Your task to perform on an android device: Set the phone to "Do not disturb". Image 0: 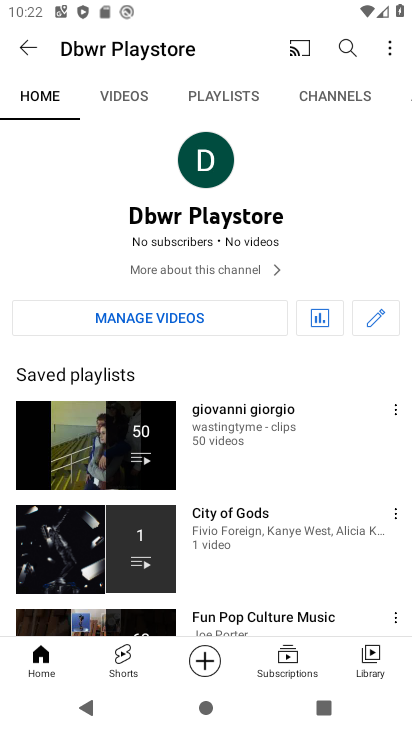
Step 0: press home button
Your task to perform on an android device: Set the phone to "Do not disturb". Image 1: 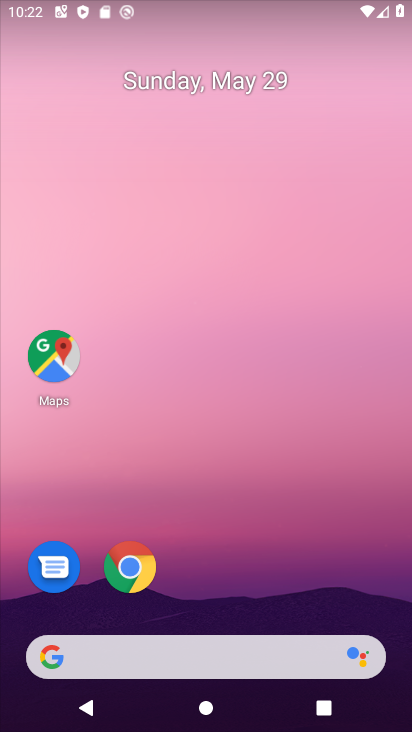
Step 1: drag from (363, 609) to (308, 179)
Your task to perform on an android device: Set the phone to "Do not disturb". Image 2: 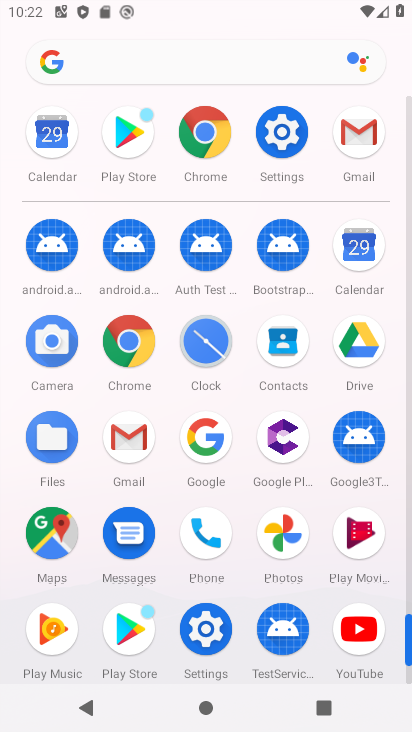
Step 2: click (208, 626)
Your task to perform on an android device: Set the phone to "Do not disturb". Image 3: 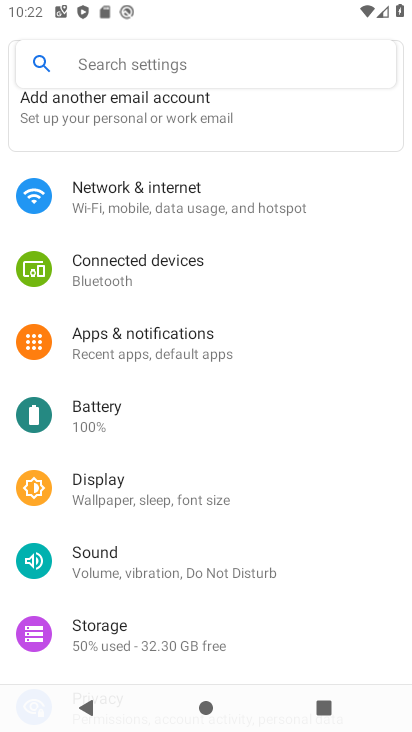
Step 3: click (159, 567)
Your task to perform on an android device: Set the phone to "Do not disturb". Image 4: 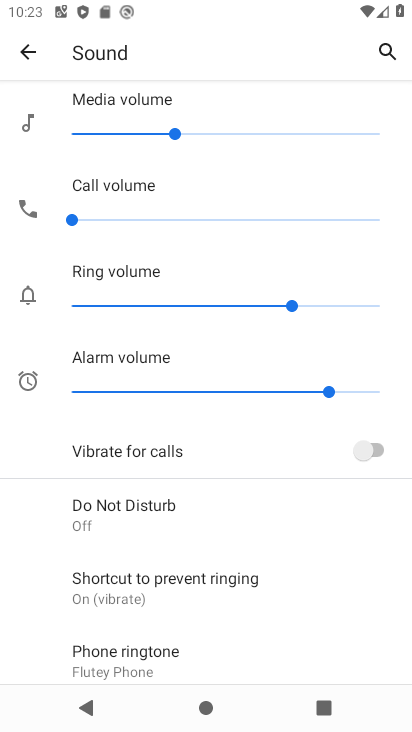
Step 4: click (119, 510)
Your task to perform on an android device: Set the phone to "Do not disturb". Image 5: 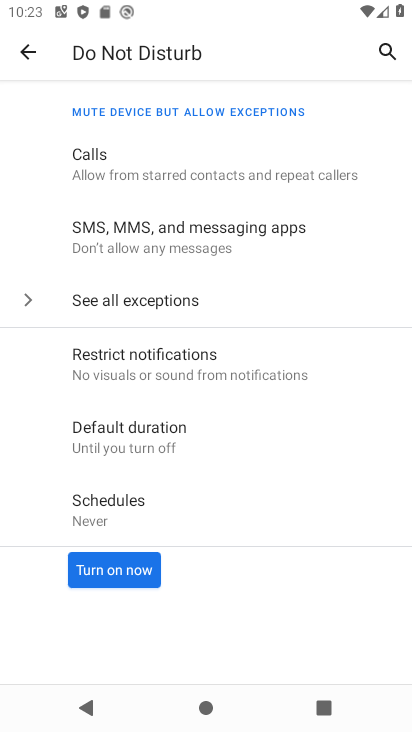
Step 5: click (108, 589)
Your task to perform on an android device: Set the phone to "Do not disturb". Image 6: 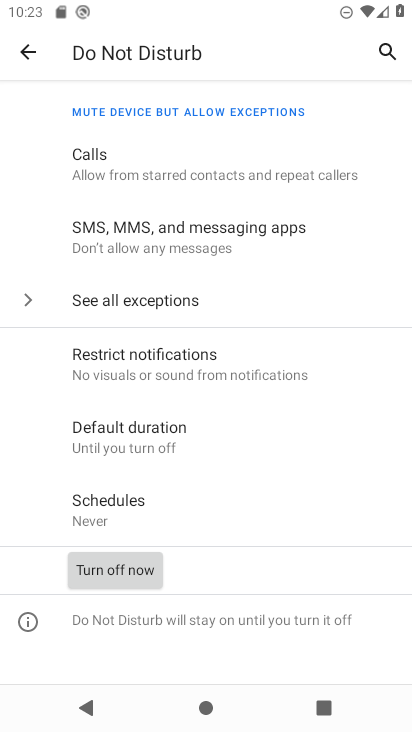
Step 6: task complete